Your task to perform on an android device: Set the phone to "Do not disturb". Image 0: 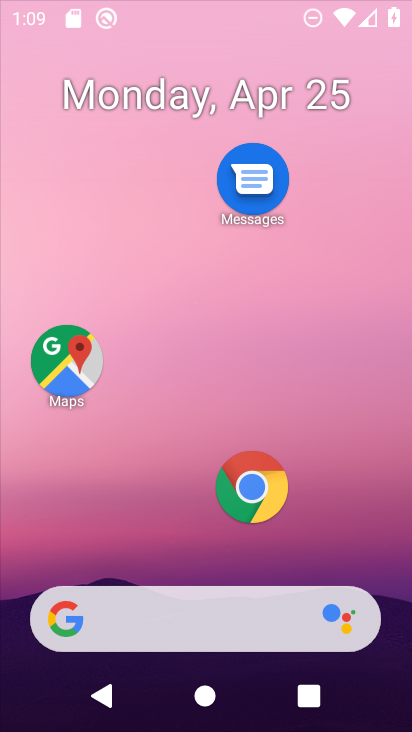
Step 0: drag from (303, 504) to (409, 521)
Your task to perform on an android device: Set the phone to "Do not disturb". Image 1: 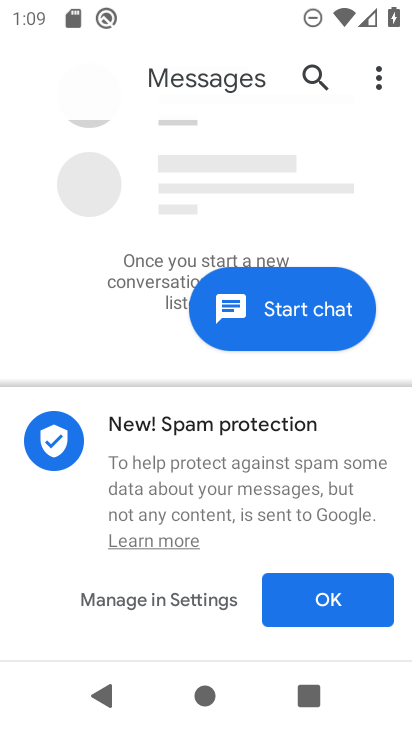
Step 1: press home button
Your task to perform on an android device: Set the phone to "Do not disturb". Image 2: 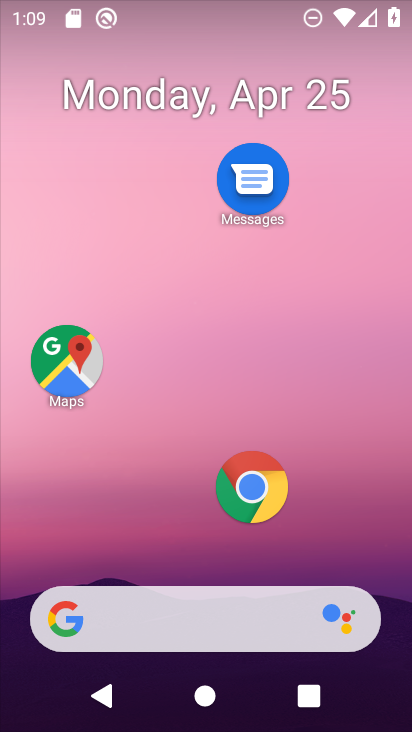
Step 2: drag from (313, 575) to (411, 0)
Your task to perform on an android device: Set the phone to "Do not disturb". Image 3: 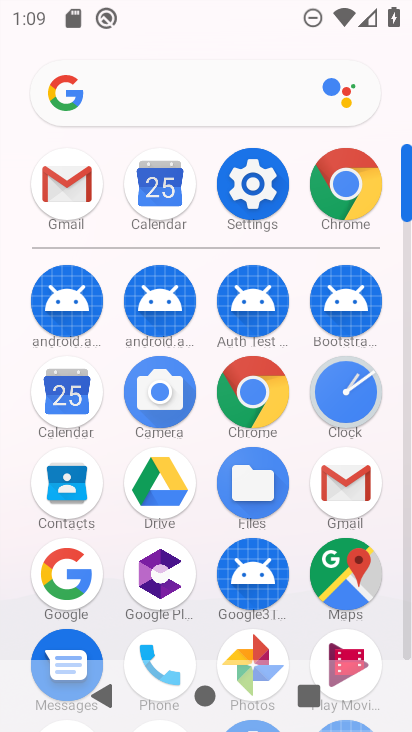
Step 3: click (262, 173)
Your task to perform on an android device: Set the phone to "Do not disturb". Image 4: 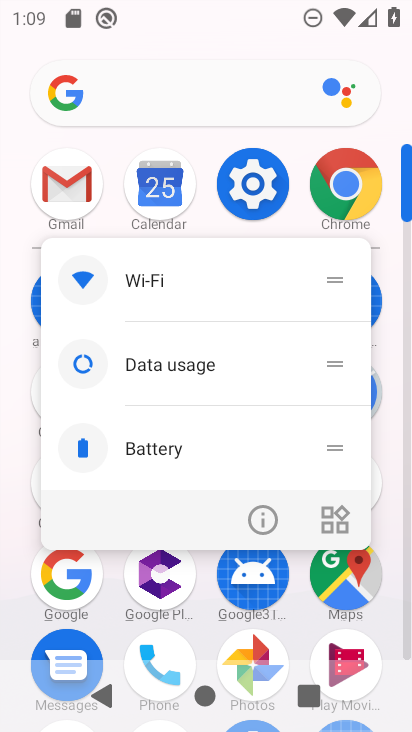
Step 4: click (259, 190)
Your task to perform on an android device: Set the phone to "Do not disturb". Image 5: 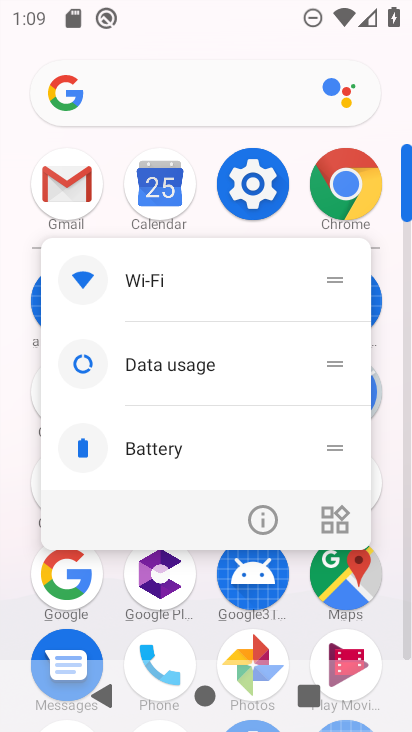
Step 5: click (264, 171)
Your task to perform on an android device: Set the phone to "Do not disturb". Image 6: 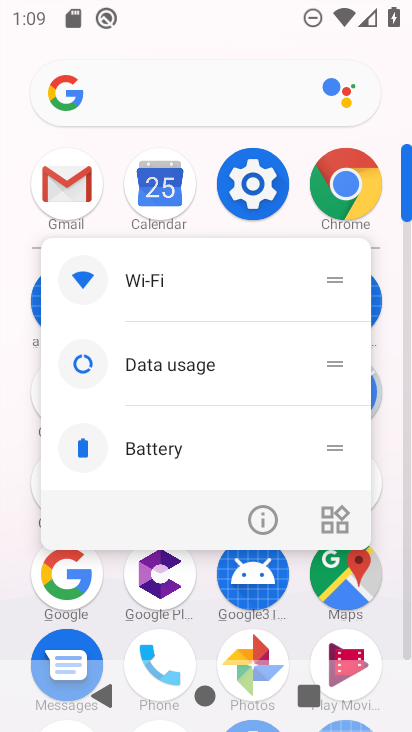
Step 6: click (262, 175)
Your task to perform on an android device: Set the phone to "Do not disturb". Image 7: 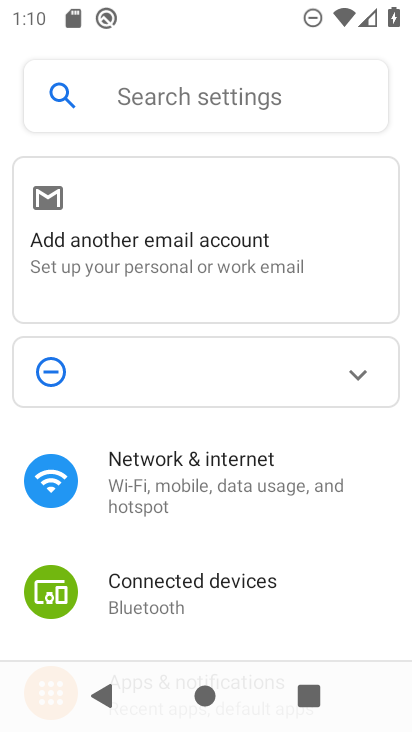
Step 7: drag from (245, 530) to (229, 87)
Your task to perform on an android device: Set the phone to "Do not disturb". Image 8: 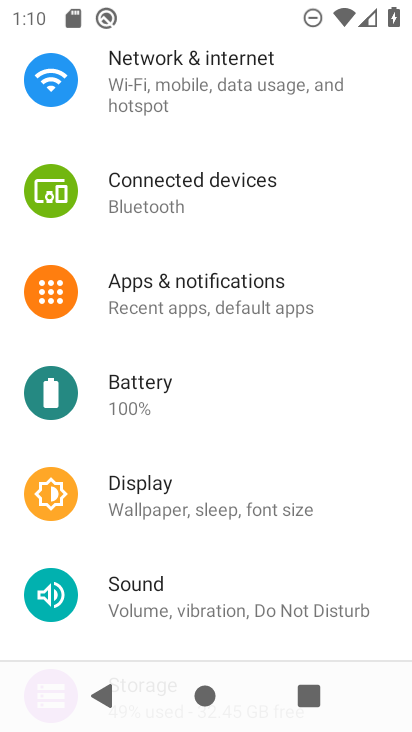
Step 8: drag from (195, 547) to (288, 115)
Your task to perform on an android device: Set the phone to "Do not disturb". Image 9: 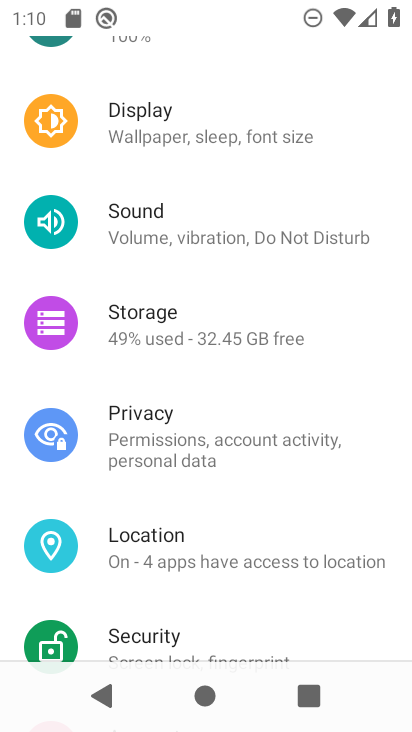
Step 9: click (238, 248)
Your task to perform on an android device: Set the phone to "Do not disturb". Image 10: 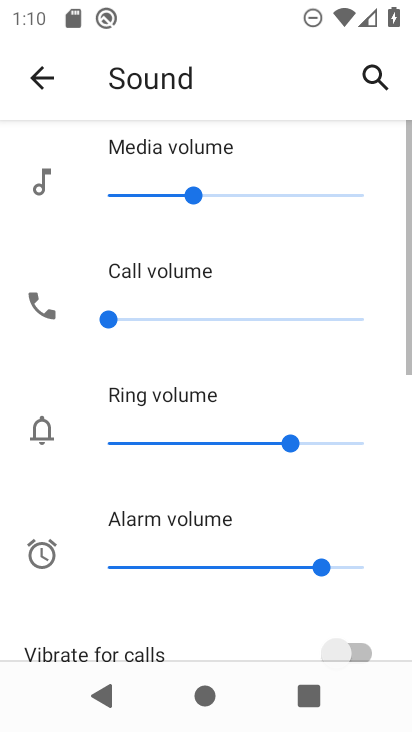
Step 10: drag from (259, 574) to (328, 128)
Your task to perform on an android device: Set the phone to "Do not disturb". Image 11: 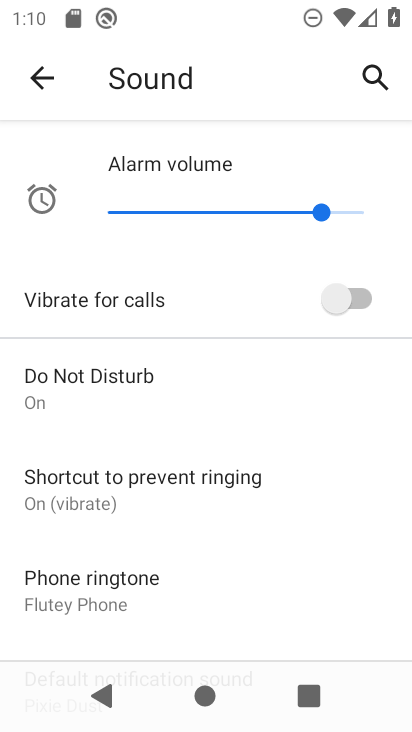
Step 11: click (213, 399)
Your task to perform on an android device: Set the phone to "Do not disturb". Image 12: 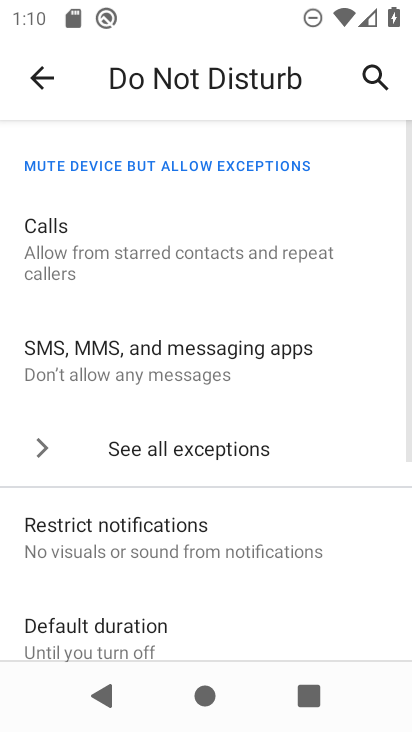
Step 12: task complete